Your task to perform on an android device: Open the web browser Image 0: 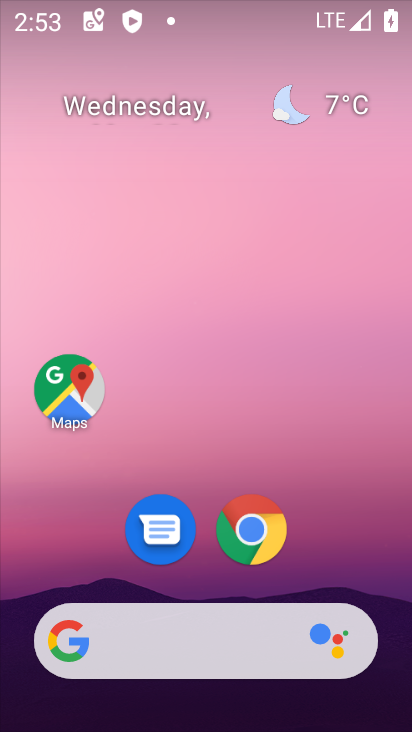
Step 0: drag from (376, 501) to (322, 30)
Your task to perform on an android device: Open the web browser Image 1: 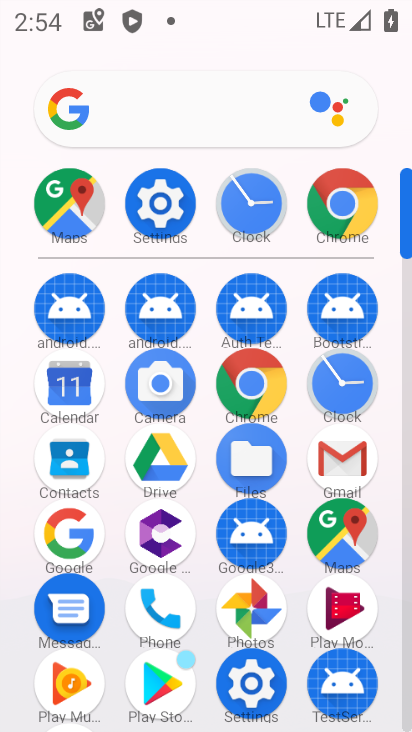
Step 1: click (340, 218)
Your task to perform on an android device: Open the web browser Image 2: 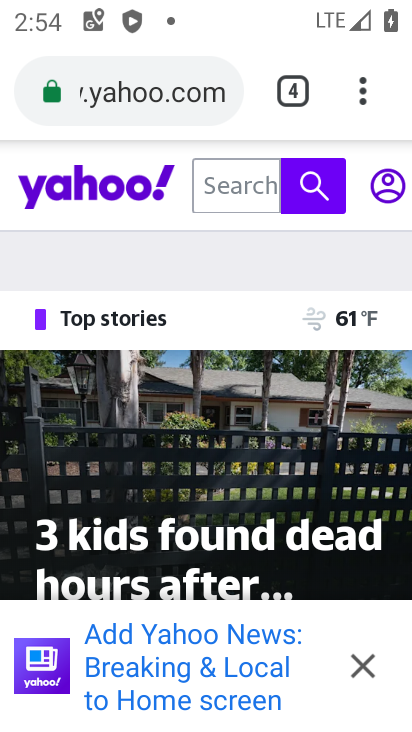
Step 2: task complete